Your task to perform on an android device: Go to eBay Image 0: 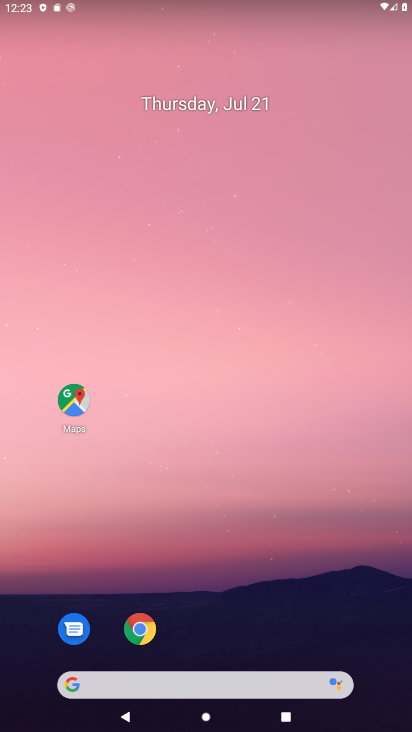
Step 0: click (133, 629)
Your task to perform on an android device: Go to eBay Image 1: 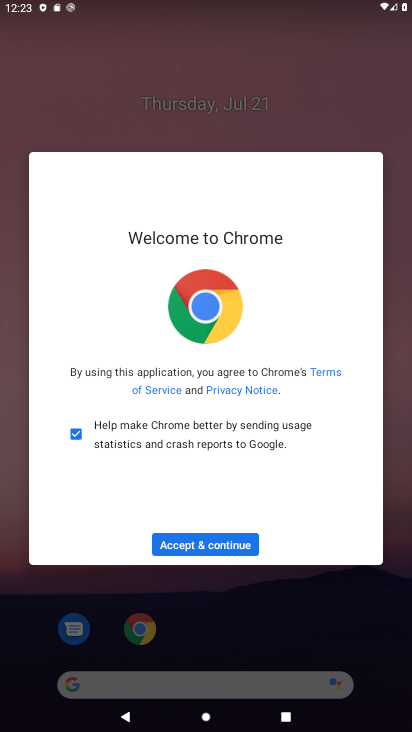
Step 1: click (213, 535)
Your task to perform on an android device: Go to eBay Image 2: 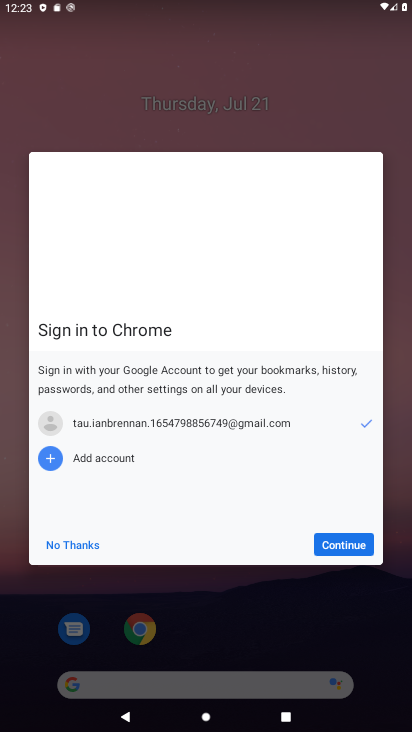
Step 2: click (342, 541)
Your task to perform on an android device: Go to eBay Image 3: 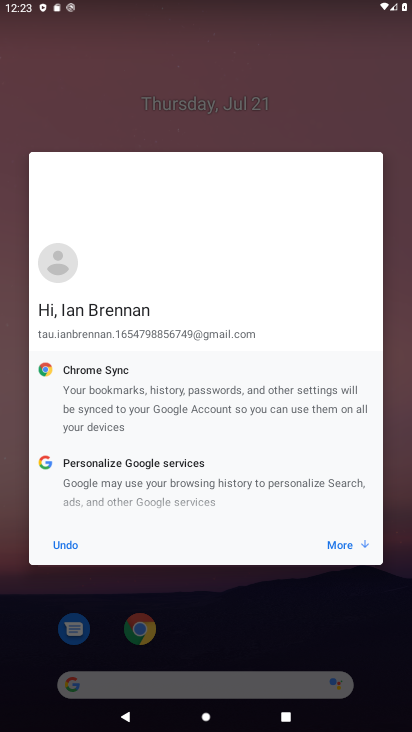
Step 3: click (342, 541)
Your task to perform on an android device: Go to eBay Image 4: 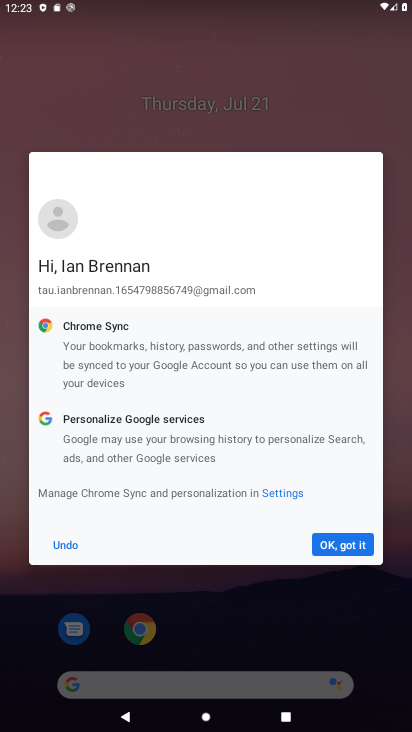
Step 4: click (342, 541)
Your task to perform on an android device: Go to eBay Image 5: 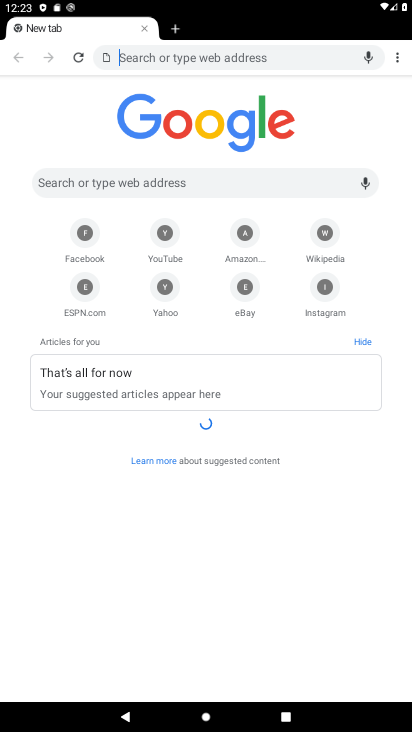
Step 5: click (245, 298)
Your task to perform on an android device: Go to eBay Image 6: 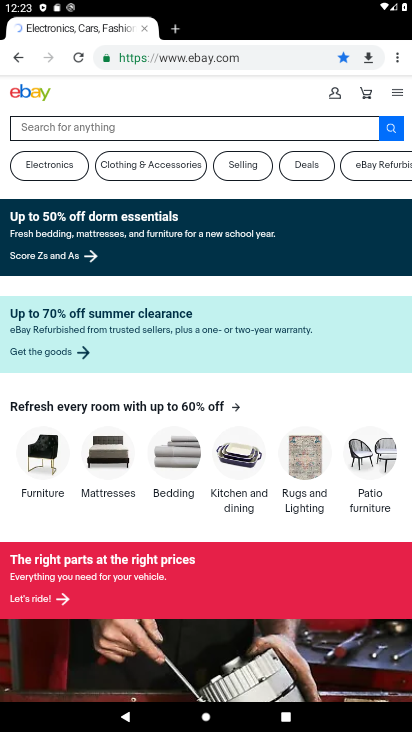
Step 6: task complete